Your task to perform on an android device: Go to Google Image 0: 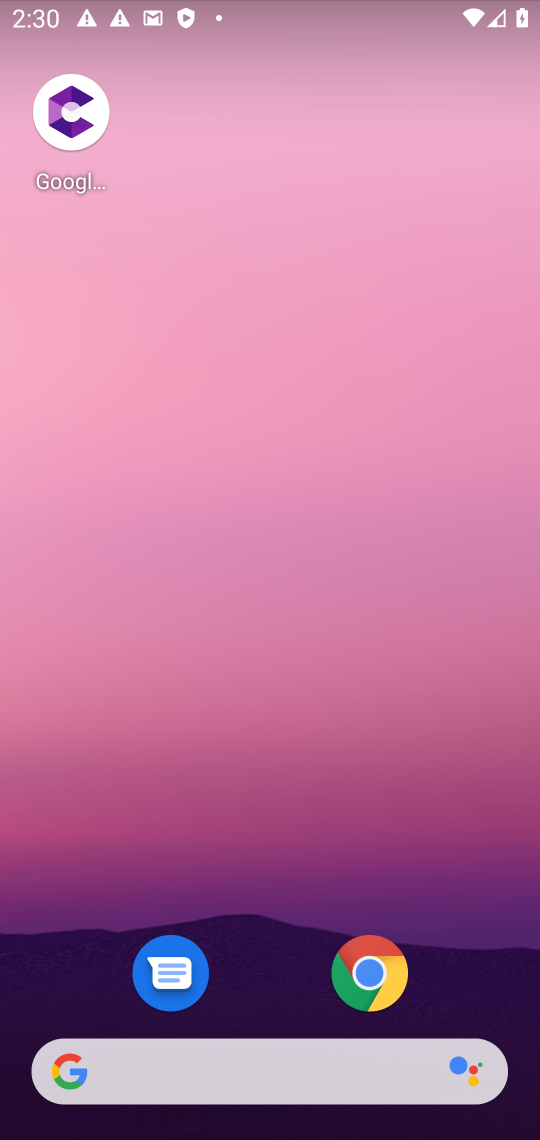
Step 0: drag from (259, 981) to (300, 175)
Your task to perform on an android device: Go to Google Image 1: 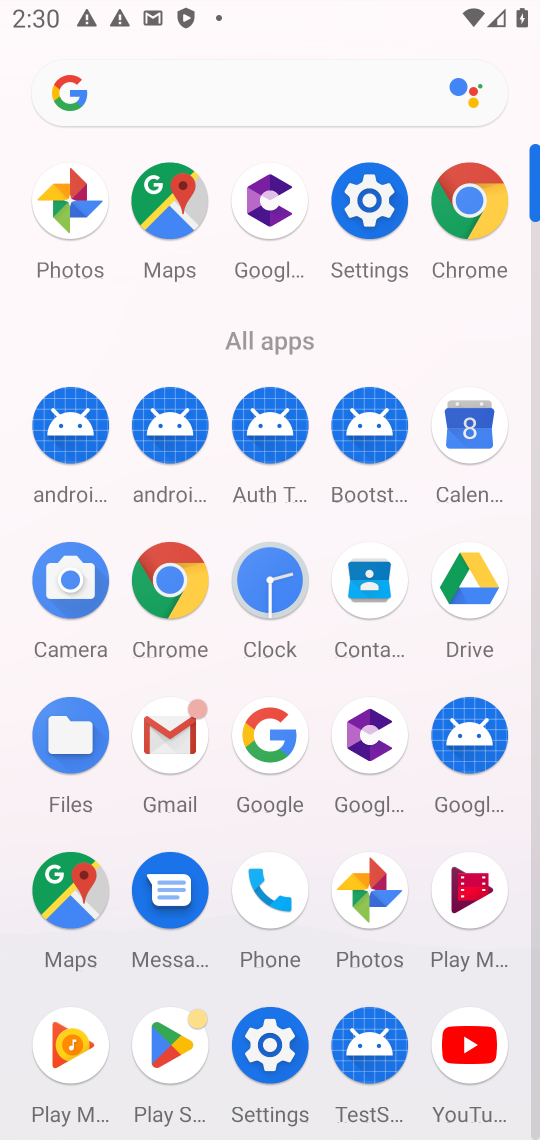
Step 1: click (266, 743)
Your task to perform on an android device: Go to Google Image 2: 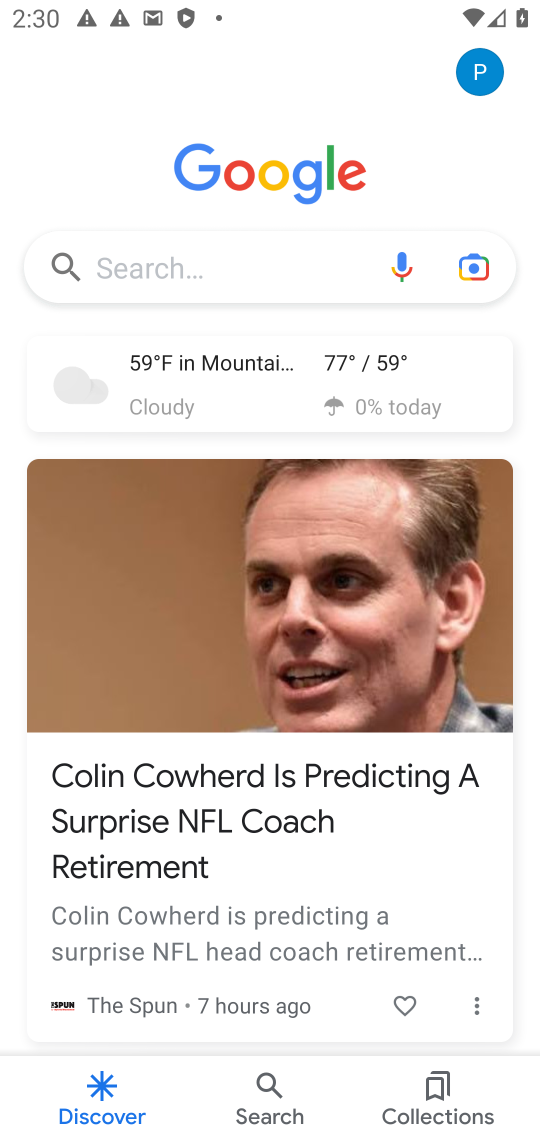
Step 2: task complete